Your task to perform on an android device: turn on location history Image 0: 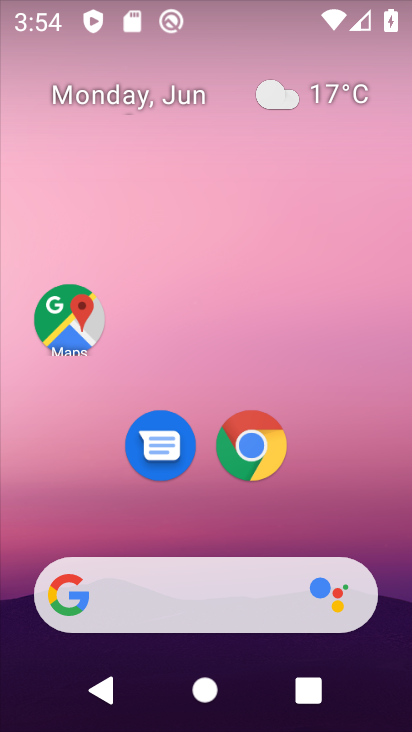
Step 0: drag from (196, 504) to (215, 95)
Your task to perform on an android device: turn on location history Image 1: 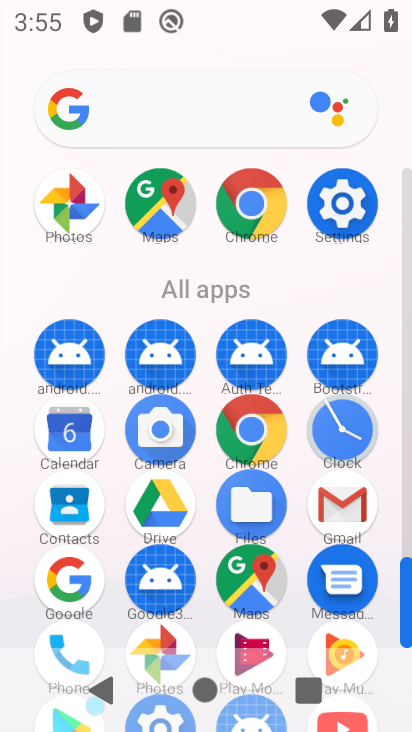
Step 1: click (346, 213)
Your task to perform on an android device: turn on location history Image 2: 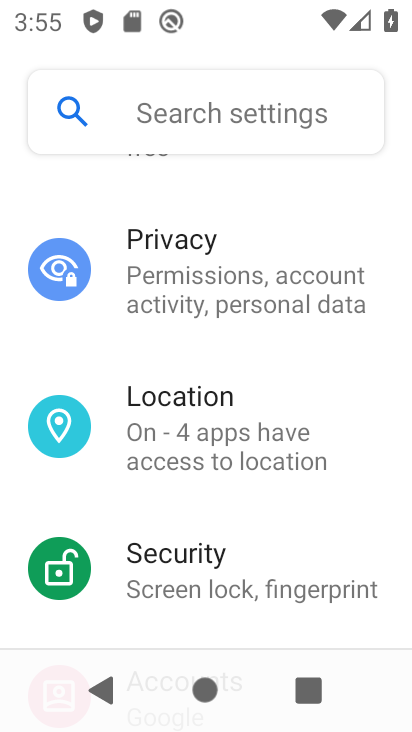
Step 2: click (203, 439)
Your task to perform on an android device: turn on location history Image 3: 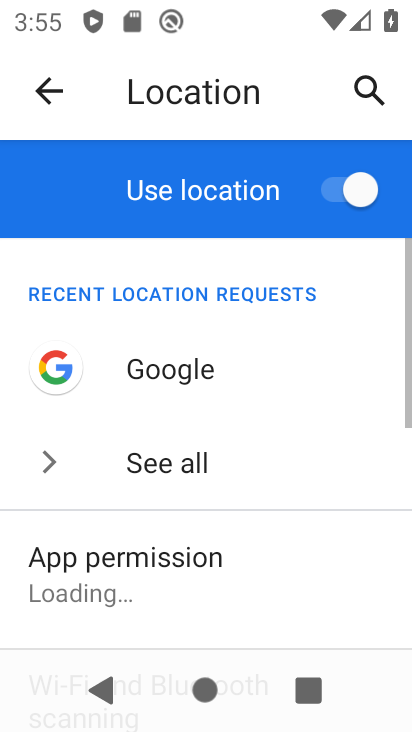
Step 3: drag from (210, 511) to (199, 181)
Your task to perform on an android device: turn on location history Image 4: 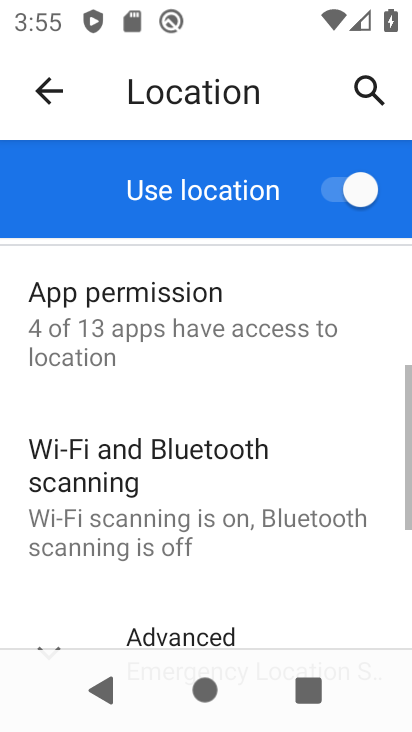
Step 4: drag from (199, 599) to (212, 287)
Your task to perform on an android device: turn on location history Image 5: 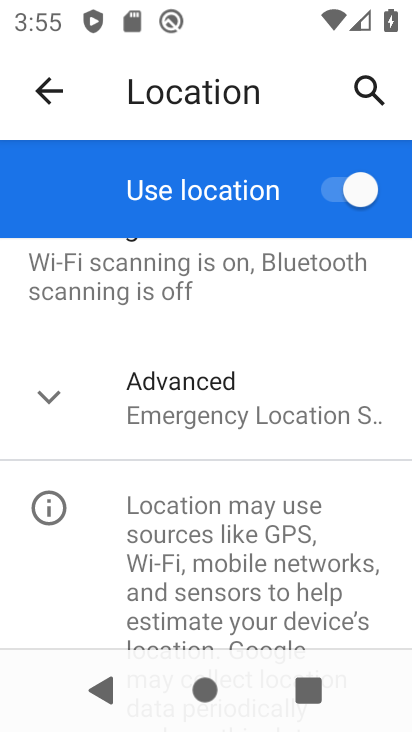
Step 5: click (150, 422)
Your task to perform on an android device: turn on location history Image 6: 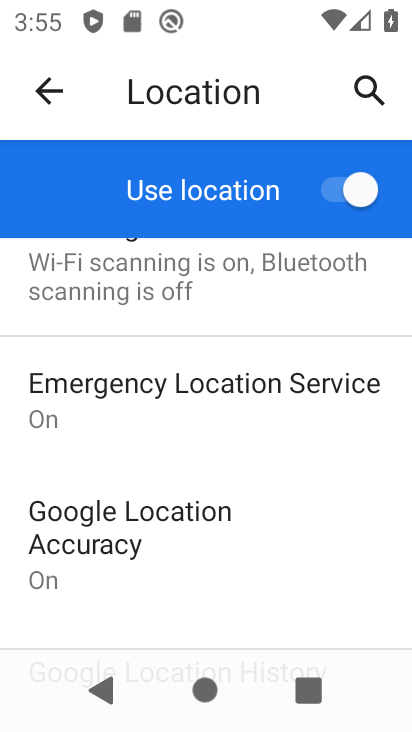
Step 6: drag from (127, 556) to (146, 318)
Your task to perform on an android device: turn on location history Image 7: 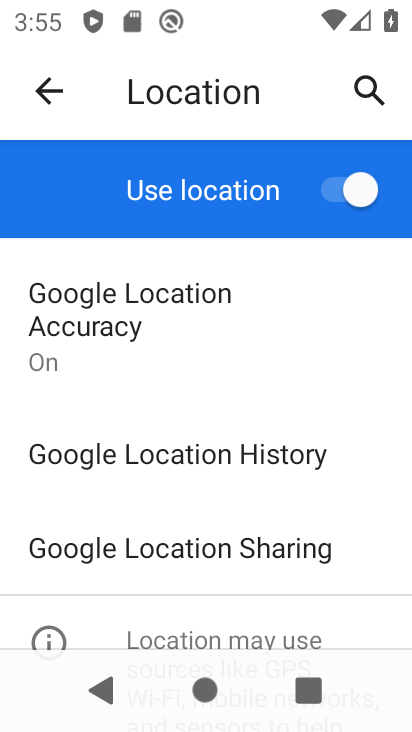
Step 7: click (161, 459)
Your task to perform on an android device: turn on location history Image 8: 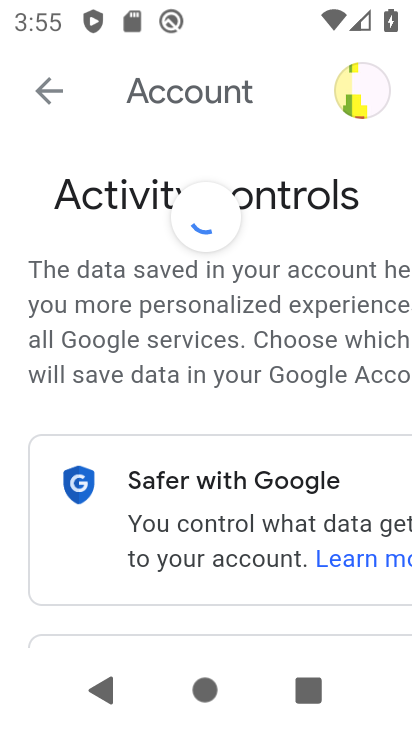
Step 8: task complete